Your task to perform on an android device: Open calendar and show me the fourth week of next month Image 0: 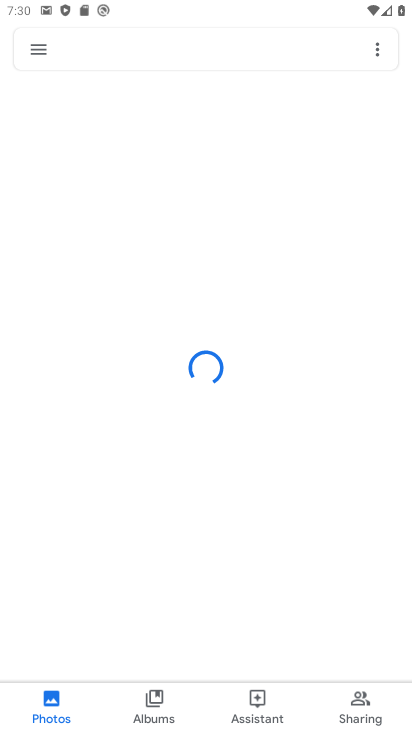
Step 0: drag from (241, 614) to (270, 365)
Your task to perform on an android device: Open calendar and show me the fourth week of next month Image 1: 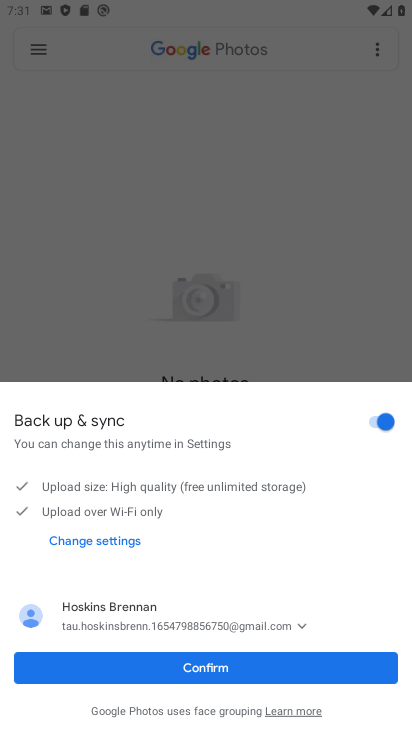
Step 1: click (184, 675)
Your task to perform on an android device: Open calendar and show me the fourth week of next month Image 2: 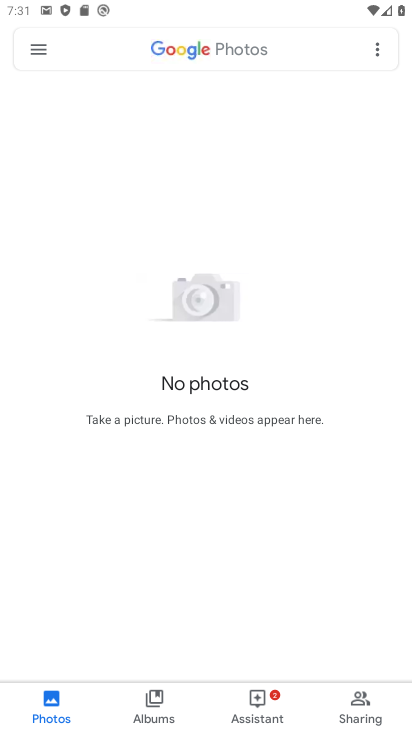
Step 2: press home button
Your task to perform on an android device: Open calendar and show me the fourth week of next month Image 3: 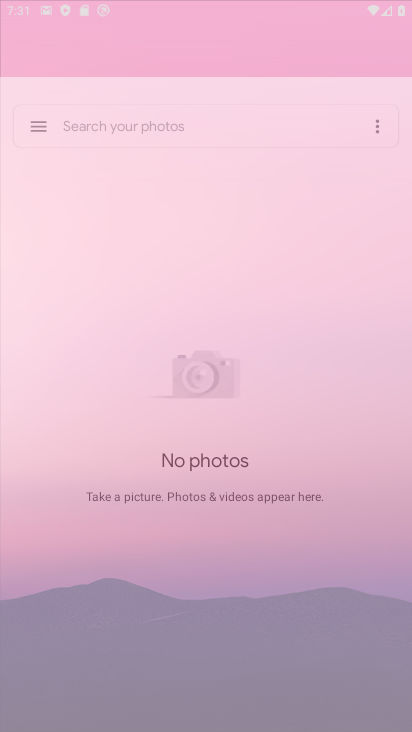
Step 3: drag from (174, 580) to (262, 0)
Your task to perform on an android device: Open calendar and show me the fourth week of next month Image 4: 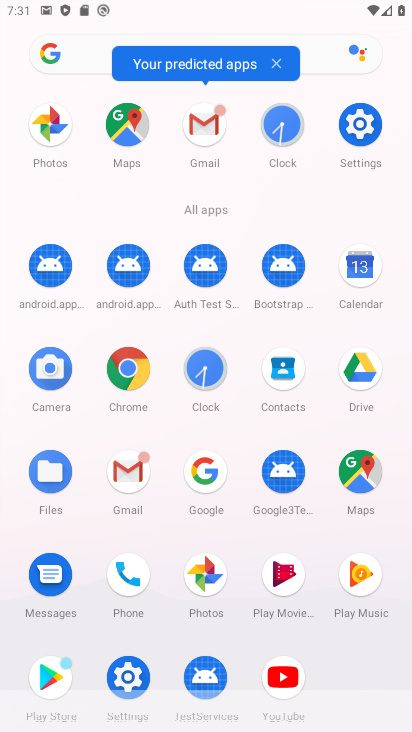
Step 4: click (366, 255)
Your task to perform on an android device: Open calendar and show me the fourth week of next month Image 5: 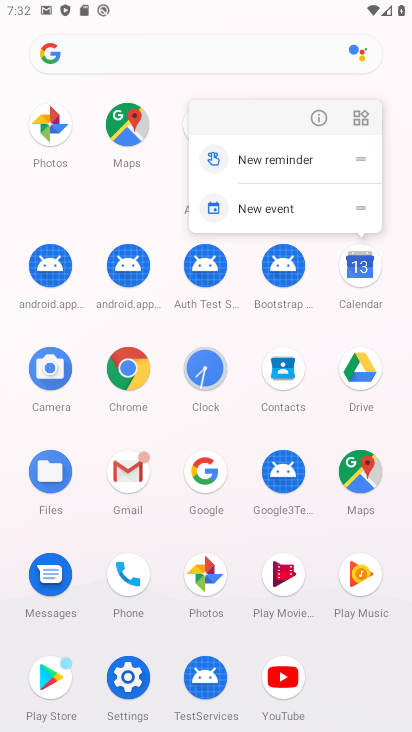
Step 5: click (319, 113)
Your task to perform on an android device: Open calendar and show me the fourth week of next month Image 6: 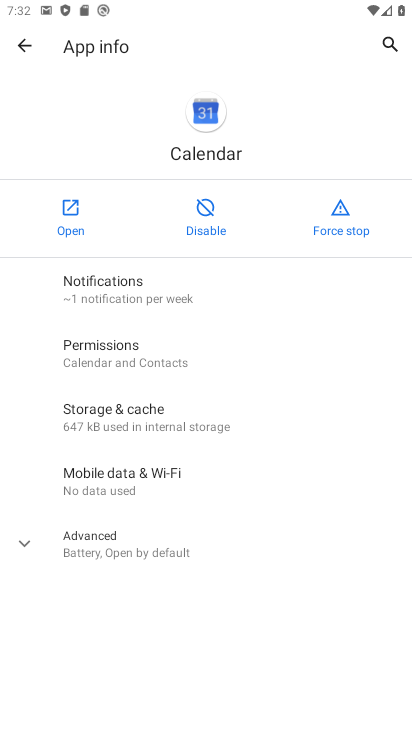
Step 6: click (60, 221)
Your task to perform on an android device: Open calendar and show me the fourth week of next month Image 7: 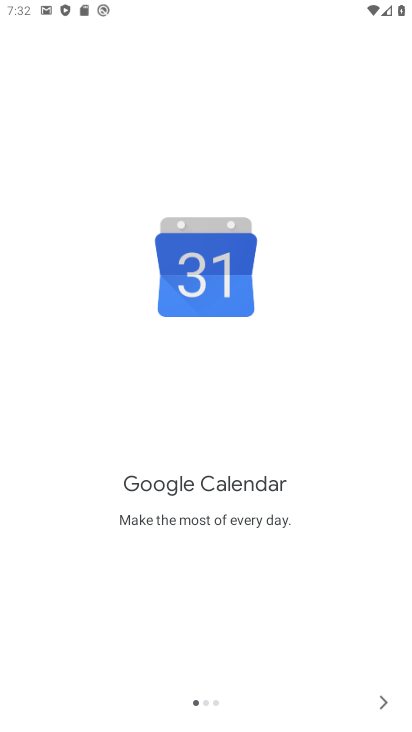
Step 7: click (378, 695)
Your task to perform on an android device: Open calendar and show me the fourth week of next month Image 8: 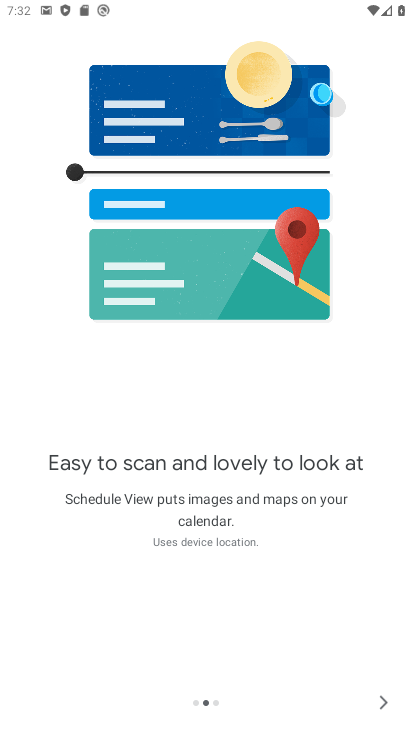
Step 8: click (374, 698)
Your task to perform on an android device: Open calendar and show me the fourth week of next month Image 9: 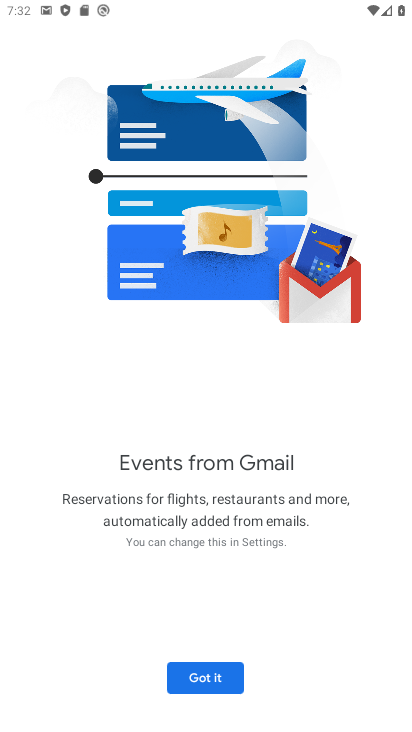
Step 9: click (200, 683)
Your task to perform on an android device: Open calendar and show me the fourth week of next month Image 10: 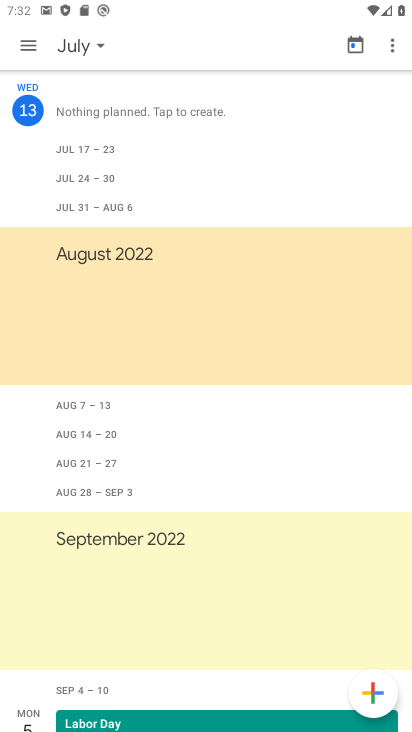
Step 10: drag from (189, 603) to (197, 381)
Your task to perform on an android device: Open calendar and show me the fourth week of next month Image 11: 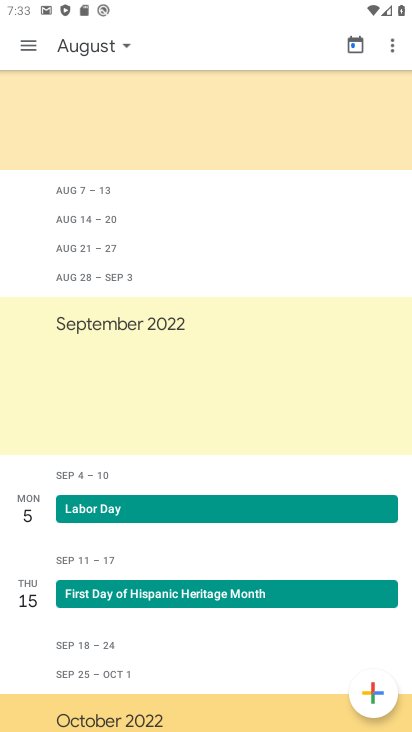
Step 11: drag from (192, 627) to (208, 482)
Your task to perform on an android device: Open calendar and show me the fourth week of next month Image 12: 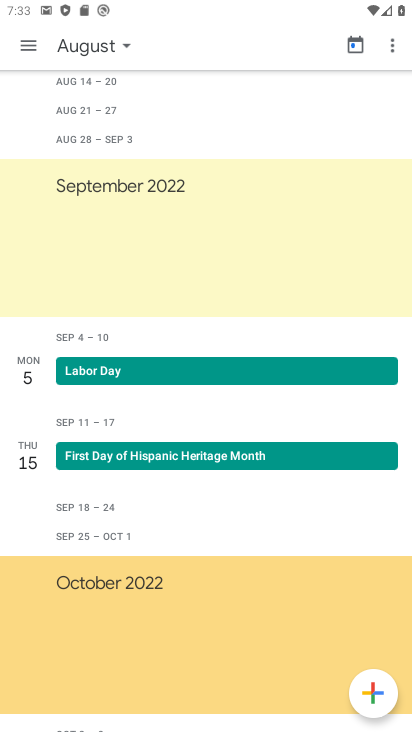
Step 12: drag from (212, 255) to (248, 647)
Your task to perform on an android device: Open calendar and show me the fourth week of next month Image 13: 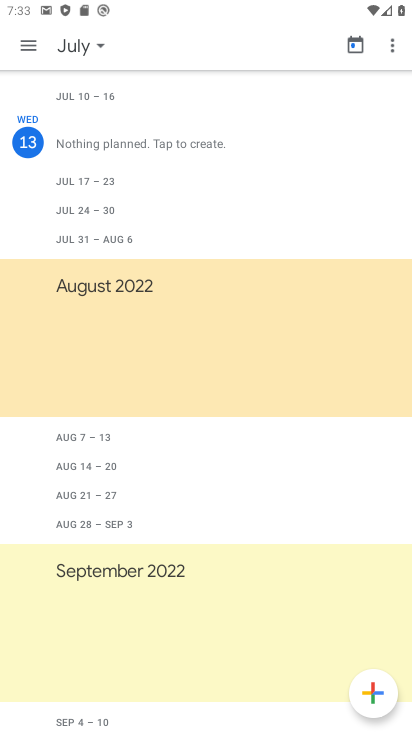
Step 13: click (76, 48)
Your task to perform on an android device: Open calendar and show me the fourth week of next month Image 14: 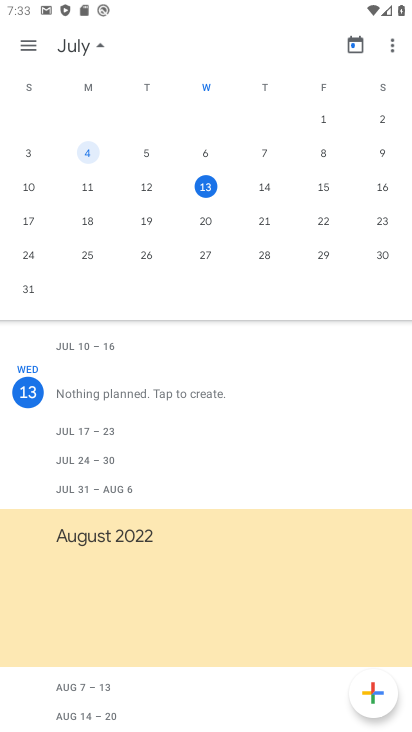
Step 14: drag from (357, 247) to (18, 239)
Your task to perform on an android device: Open calendar and show me the fourth week of next month Image 15: 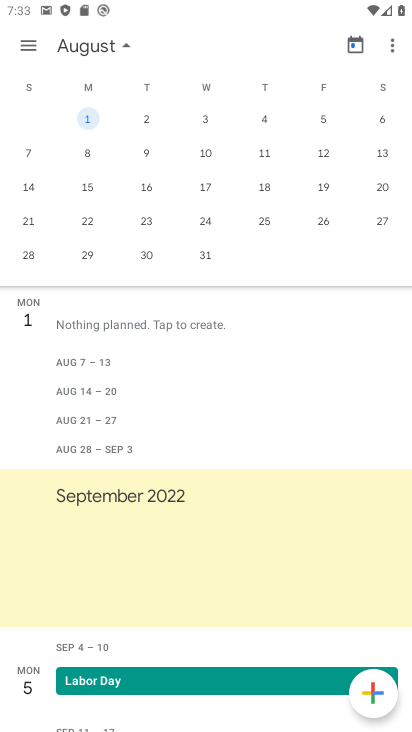
Step 15: click (321, 221)
Your task to perform on an android device: Open calendar and show me the fourth week of next month Image 16: 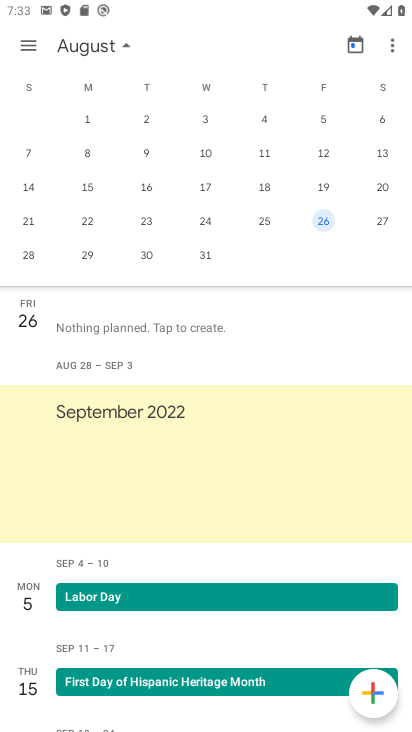
Step 16: click (88, 219)
Your task to perform on an android device: Open calendar and show me the fourth week of next month Image 17: 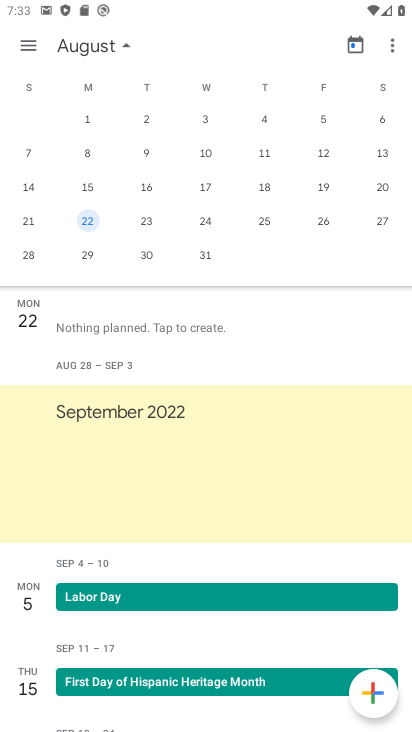
Step 17: drag from (232, 453) to (292, 277)
Your task to perform on an android device: Open calendar and show me the fourth week of next month Image 18: 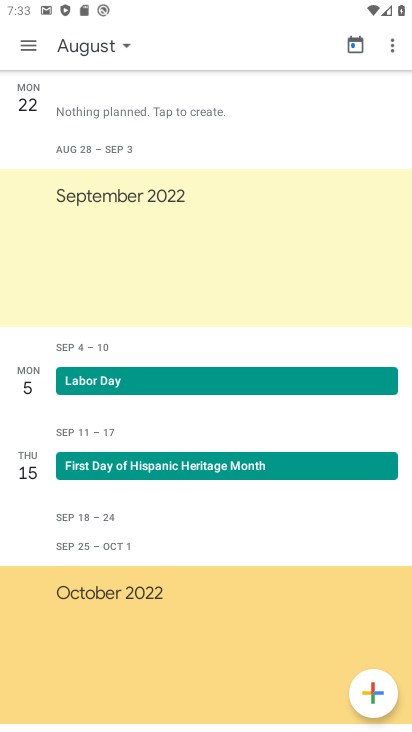
Step 18: click (110, 48)
Your task to perform on an android device: Open calendar and show me the fourth week of next month Image 19: 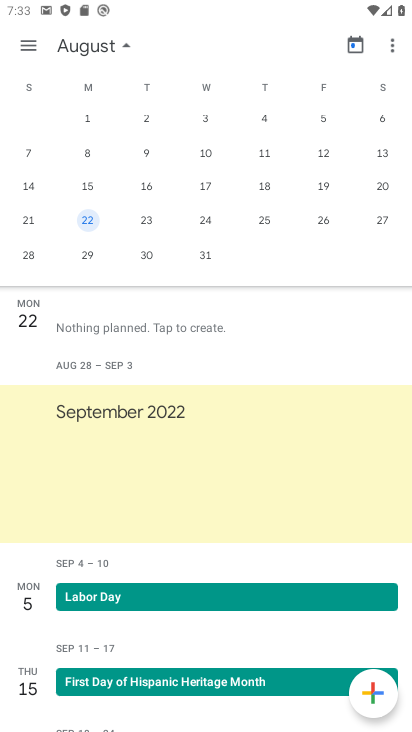
Step 19: task complete